Your task to perform on an android device: open app "Pinterest" (install if not already installed), go to login, and select forgot password Image 0: 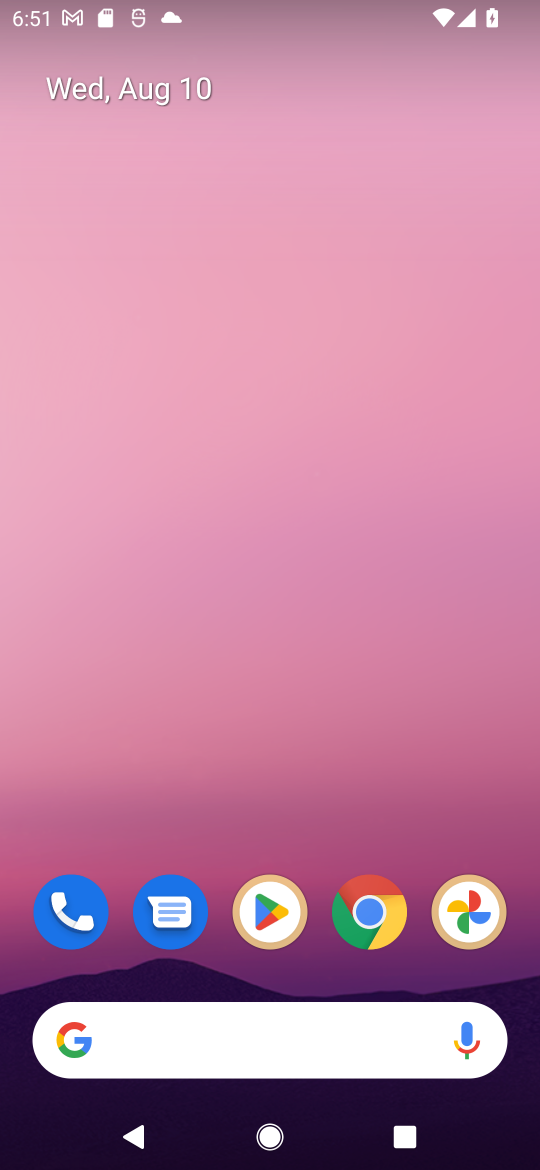
Step 0: drag from (413, 978) to (188, 141)
Your task to perform on an android device: open app "Pinterest" (install if not already installed), go to login, and select forgot password Image 1: 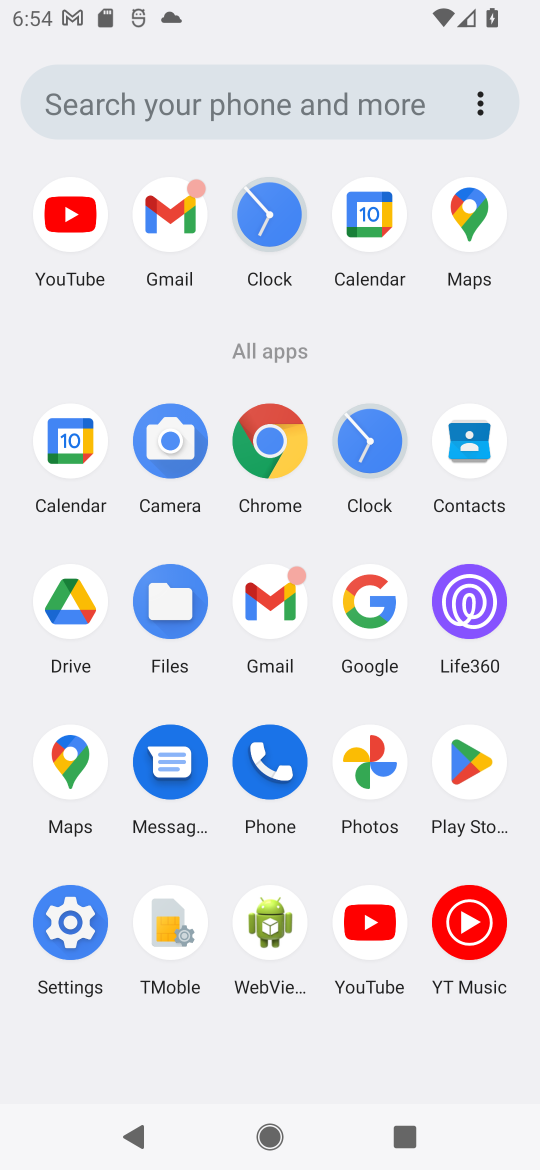
Step 1: click (455, 764)
Your task to perform on an android device: open app "Pinterest" (install if not already installed), go to login, and select forgot password Image 2: 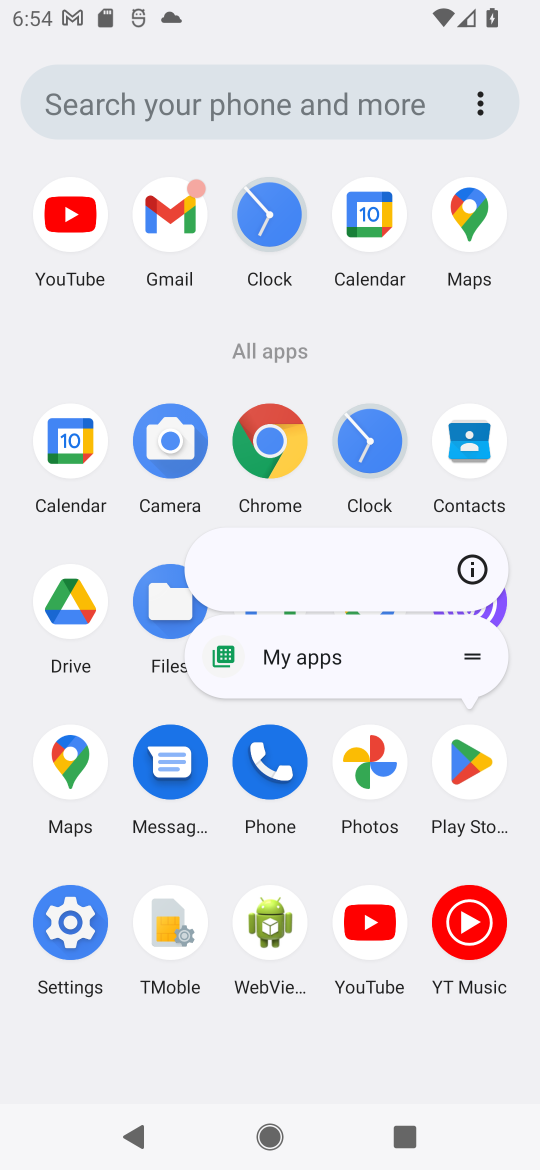
Step 2: click (473, 800)
Your task to perform on an android device: open app "Pinterest" (install if not already installed), go to login, and select forgot password Image 3: 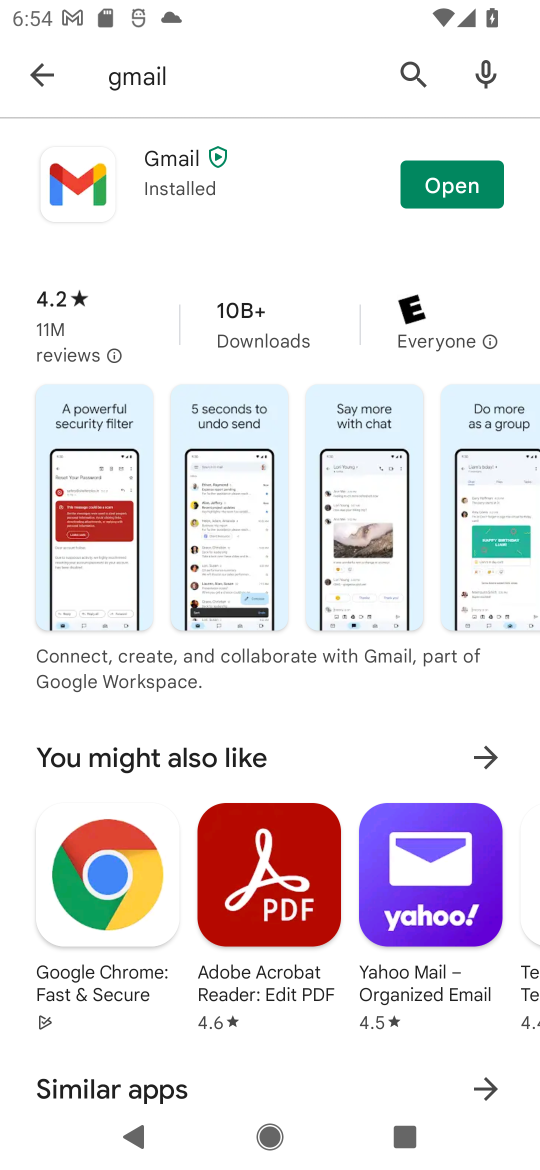
Step 3: press back button
Your task to perform on an android device: open app "Pinterest" (install if not already installed), go to login, and select forgot password Image 4: 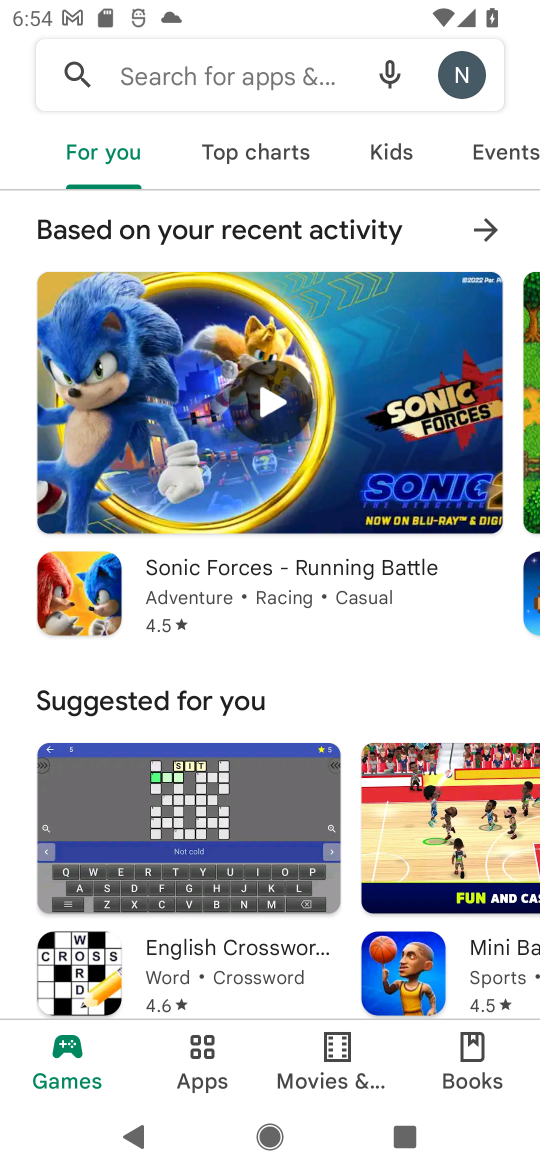
Step 4: click (194, 75)
Your task to perform on an android device: open app "Pinterest" (install if not already installed), go to login, and select forgot password Image 5: 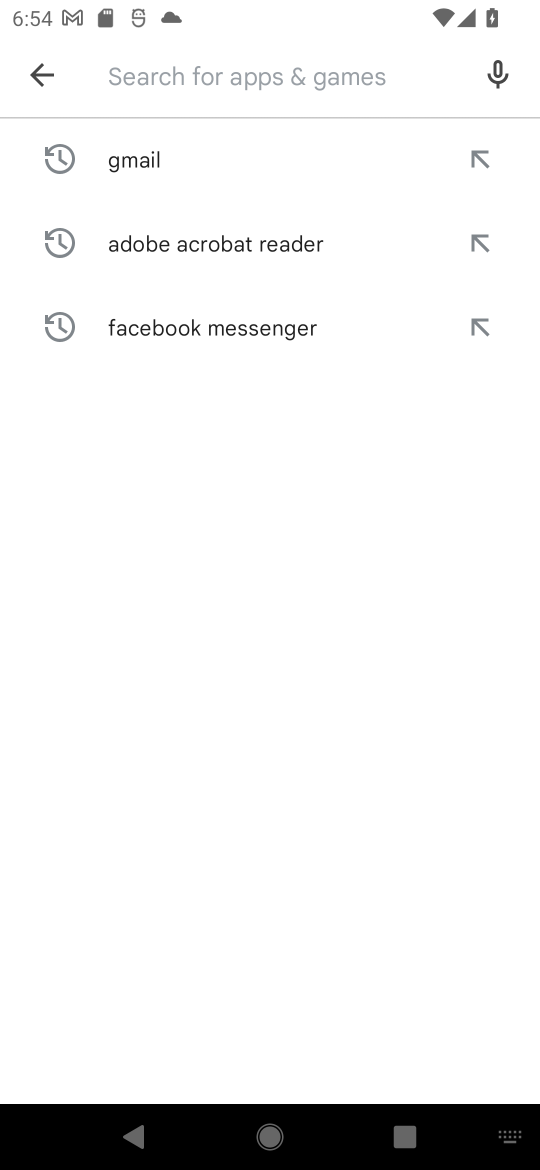
Step 5: type "Pinterest"
Your task to perform on an android device: open app "Pinterest" (install if not already installed), go to login, and select forgot password Image 6: 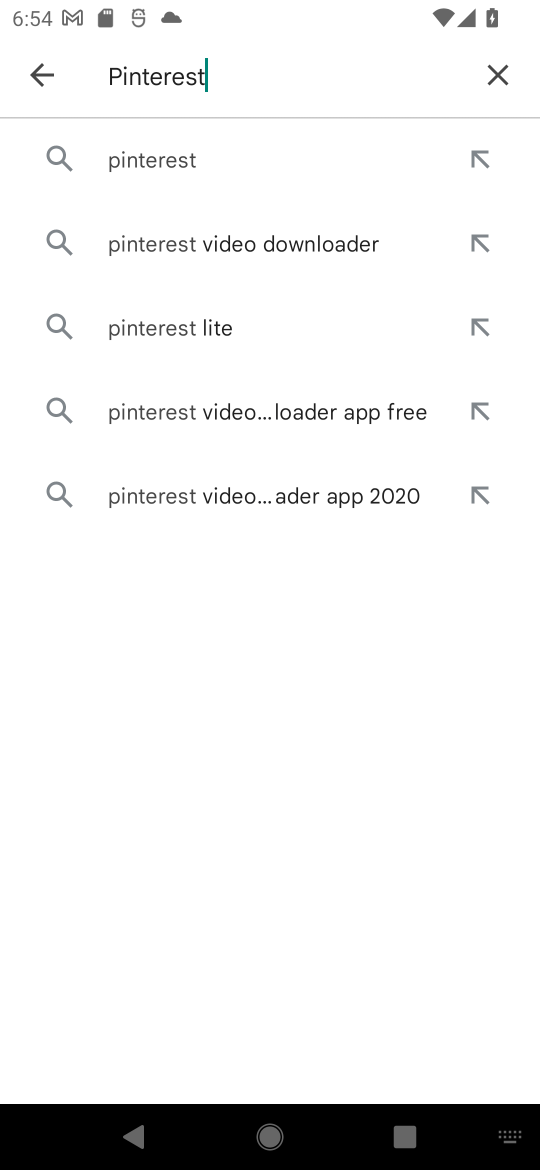
Step 6: click (220, 168)
Your task to perform on an android device: open app "Pinterest" (install if not already installed), go to login, and select forgot password Image 7: 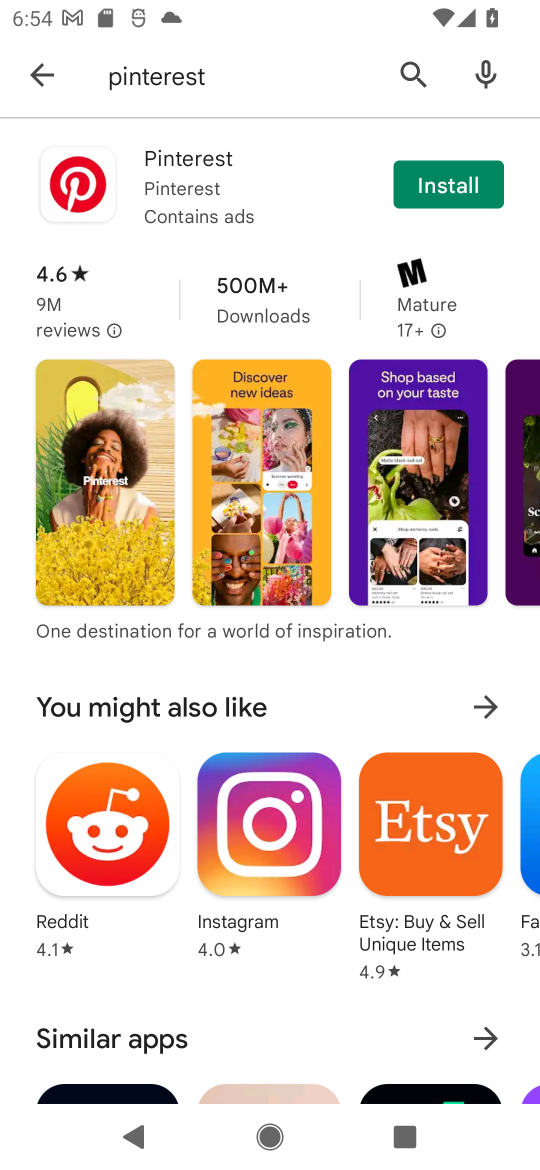
Step 7: task complete